Your task to perform on an android device: Open Chrome and go to settings Image 0: 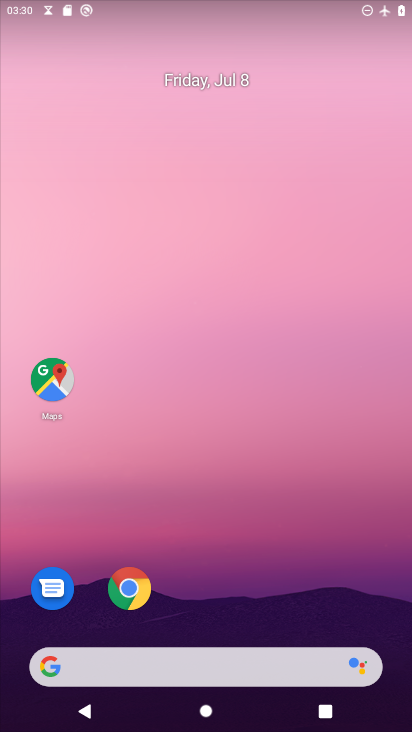
Step 0: drag from (199, 617) to (145, 43)
Your task to perform on an android device: Open Chrome and go to settings Image 1: 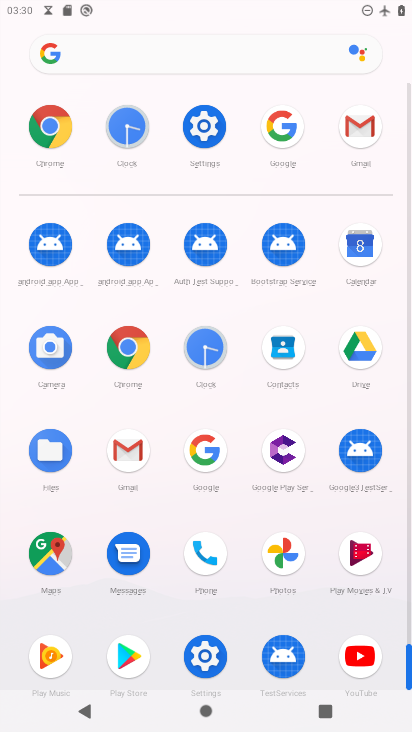
Step 1: click (54, 143)
Your task to perform on an android device: Open Chrome and go to settings Image 2: 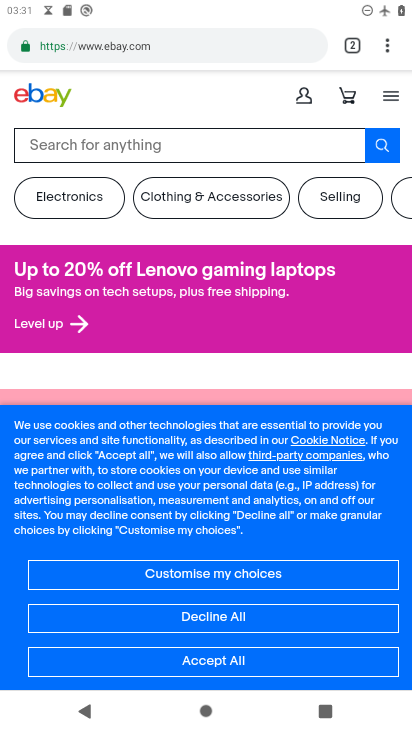
Step 2: click (389, 44)
Your task to perform on an android device: Open Chrome and go to settings Image 3: 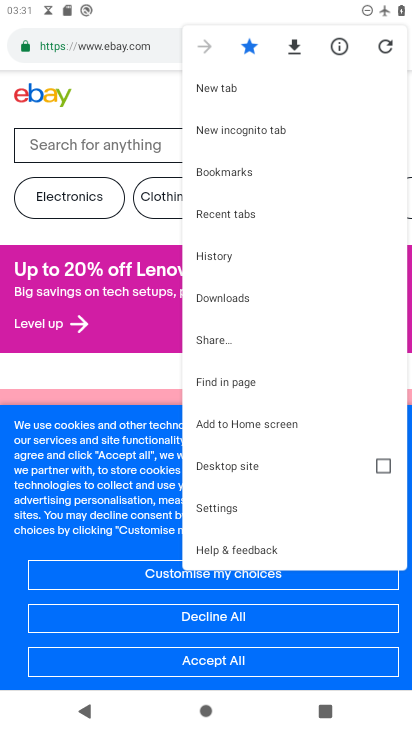
Step 3: click (216, 505)
Your task to perform on an android device: Open Chrome and go to settings Image 4: 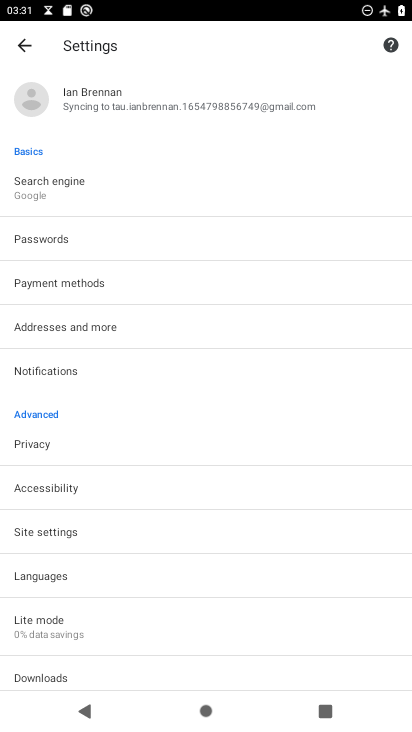
Step 4: task complete